Your task to perform on an android device: toggle notification dots Image 0: 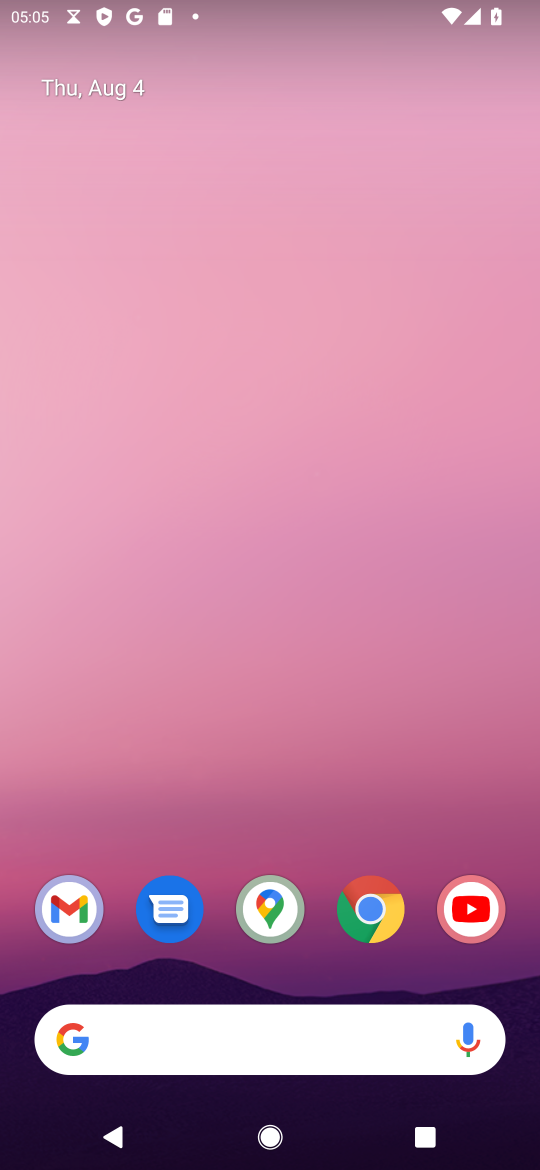
Step 0: drag from (218, 1036) to (335, 170)
Your task to perform on an android device: toggle notification dots Image 1: 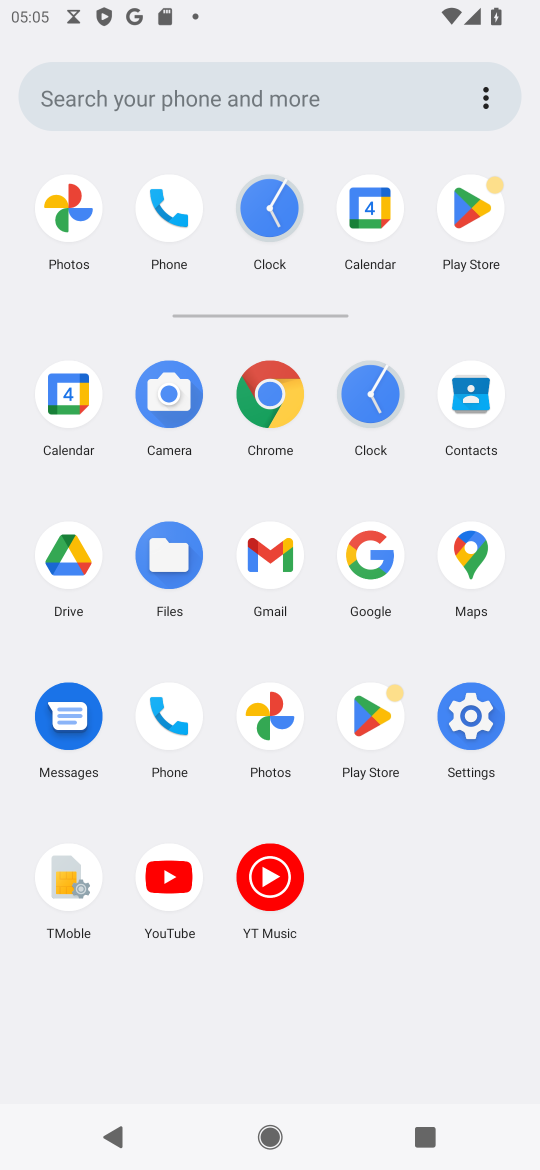
Step 1: click (476, 721)
Your task to perform on an android device: toggle notification dots Image 2: 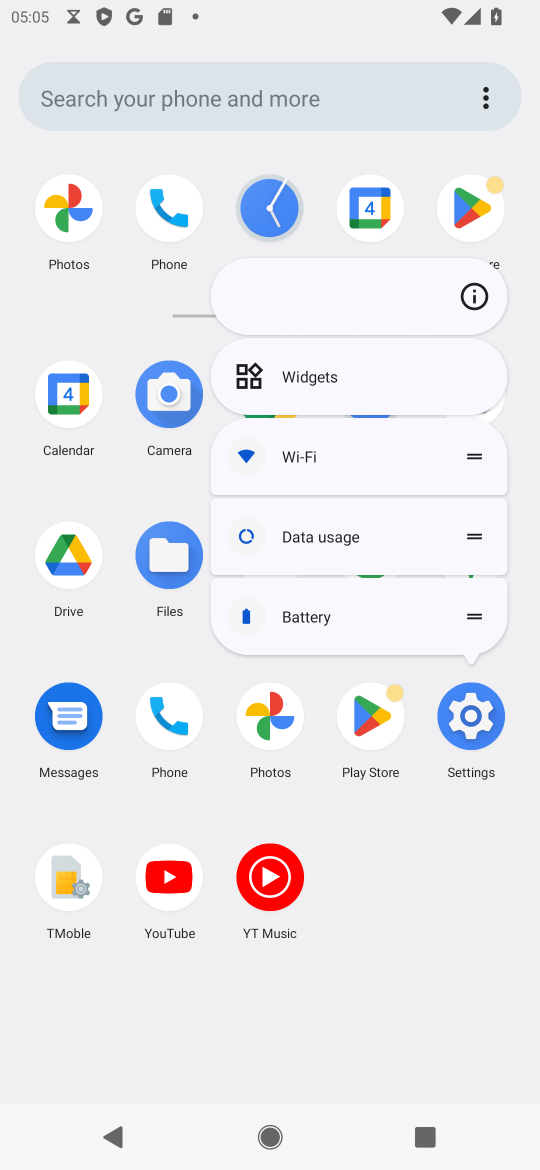
Step 2: click (465, 714)
Your task to perform on an android device: toggle notification dots Image 3: 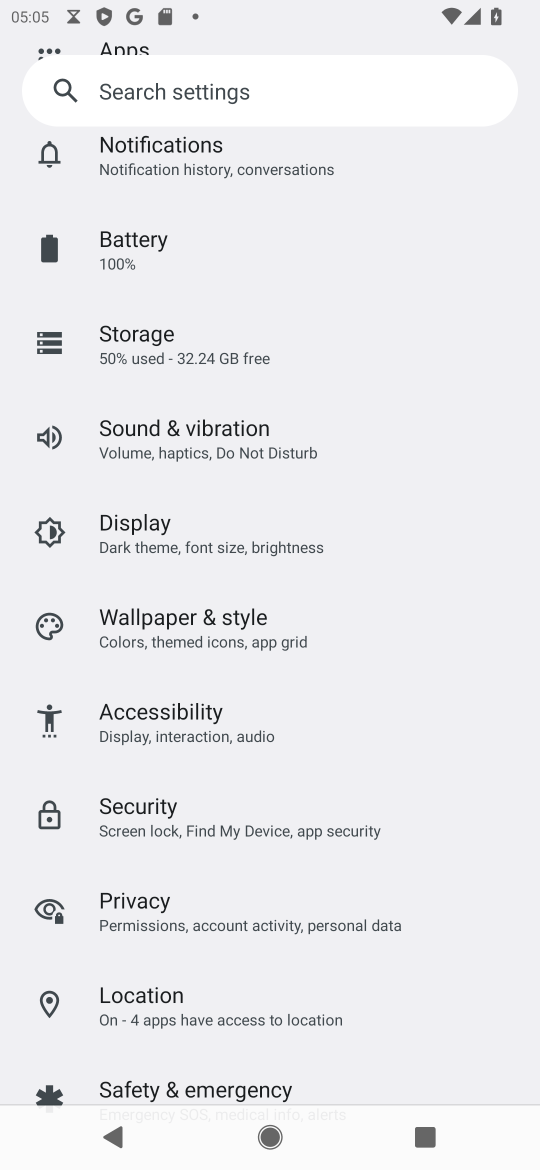
Step 3: drag from (348, 1000) to (353, 304)
Your task to perform on an android device: toggle notification dots Image 4: 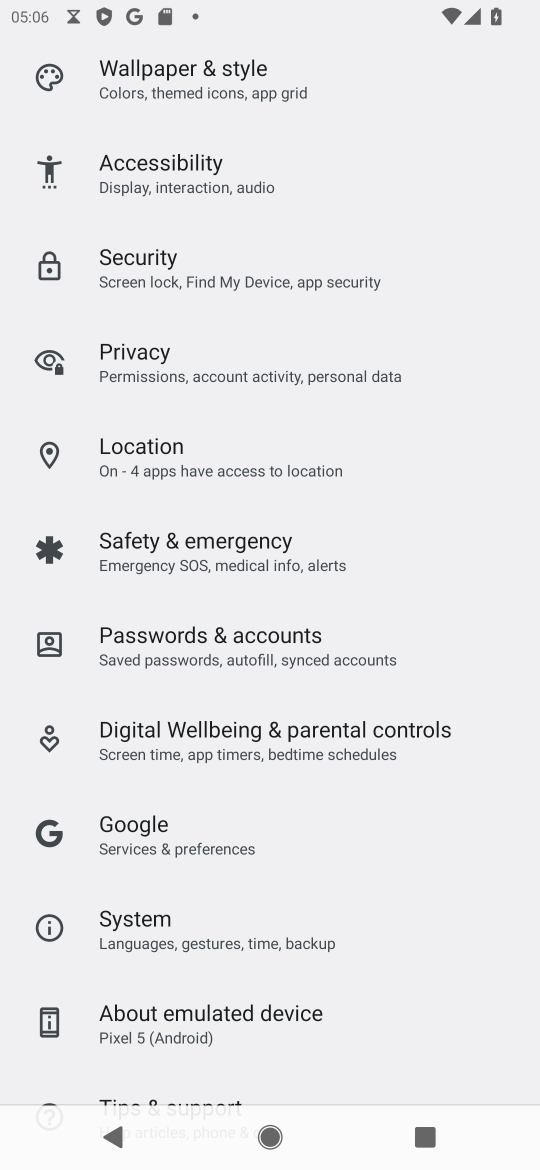
Step 4: drag from (441, 363) to (309, 990)
Your task to perform on an android device: toggle notification dots Image 5: 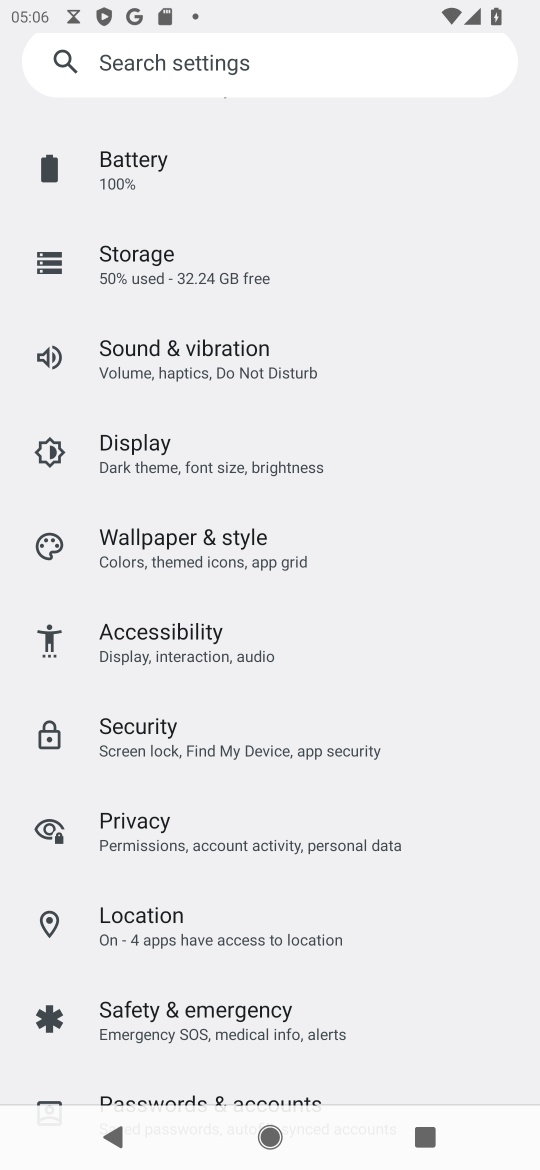
Step 5: drag from (398, 317) to (343, 936)
Your task to perform on an android device: toggle notification dots Image 6: 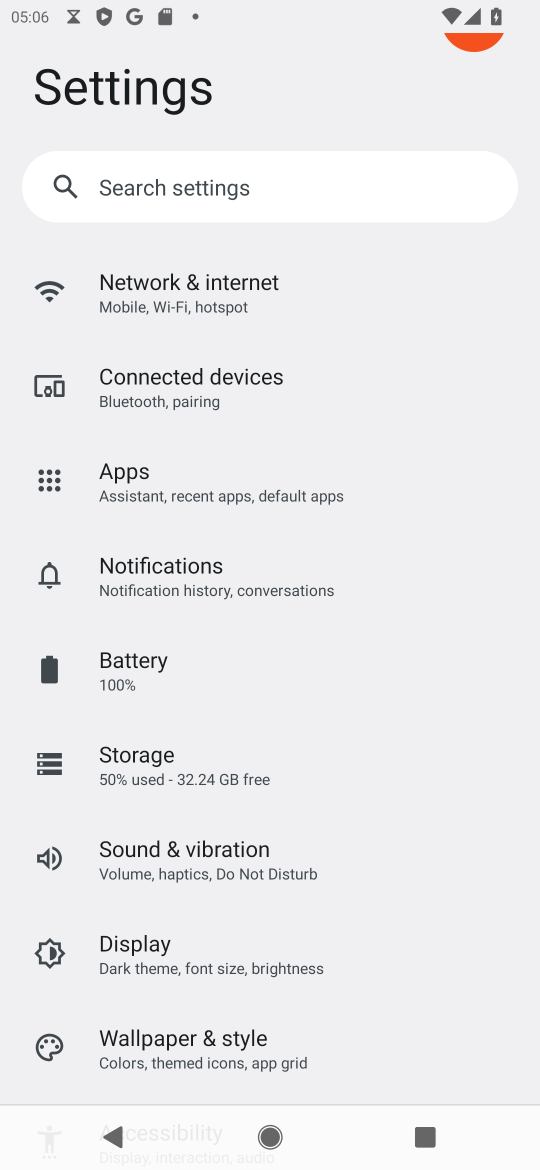
Step 6: click (209, 566)
Your task to perform on an android device: toggle notification dots Image 7: 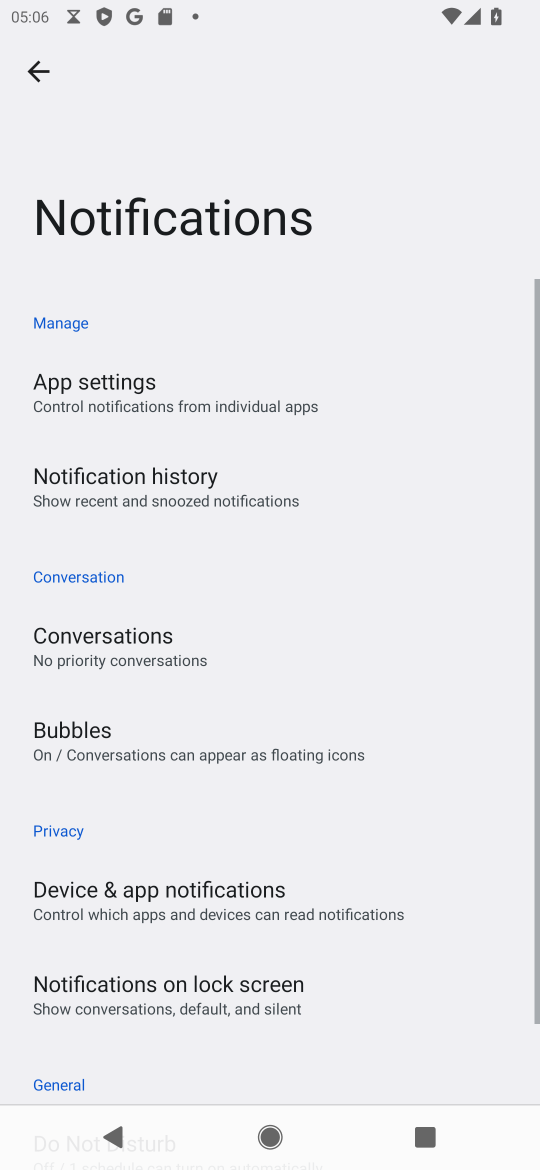
Step 7: drag from (281, 1010) to (408, 181)
Your task to perform on an android device: toggle notification dots Image 8: 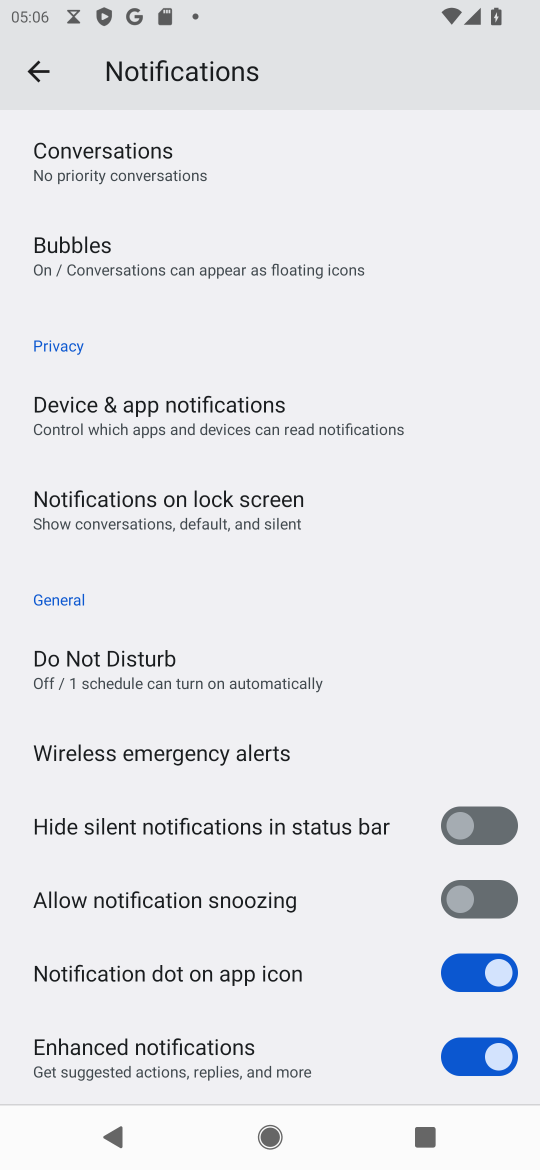
Step 8: drag from (298, 877) to (378, 431)
Your task to perform on an android device: toggle notification dots Image 9: 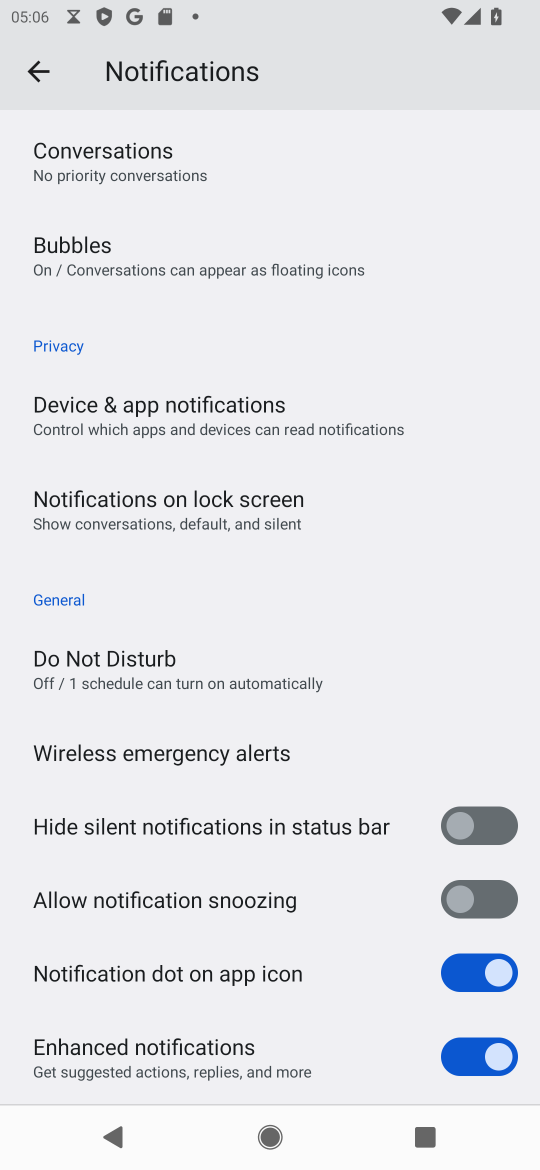
Step 9: click (461, 980)
Your task to perform on an android device: toggle notification dots Image 10: 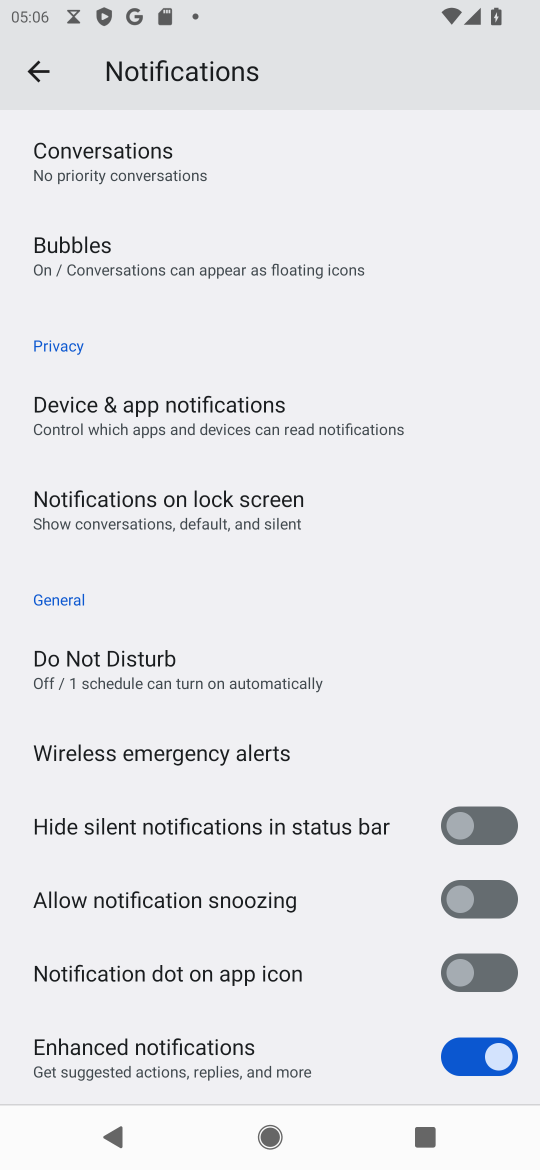
Step 10: task complete